Your task to perform on an android device: Open wifi settings Image 0: 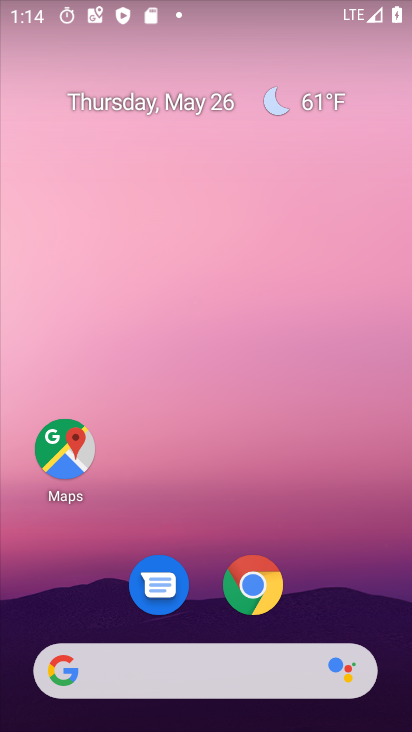
Step 0: drag from (223, 490) to (229, 30)
Your task to perform on an android device: Open wifi settings Image 1: 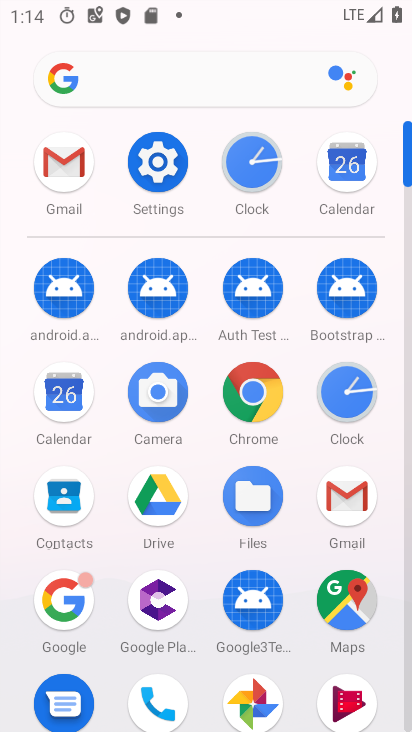
Step 1: click (164, 150)
Your task to perform on an android device: Open wifi settings Image 2: 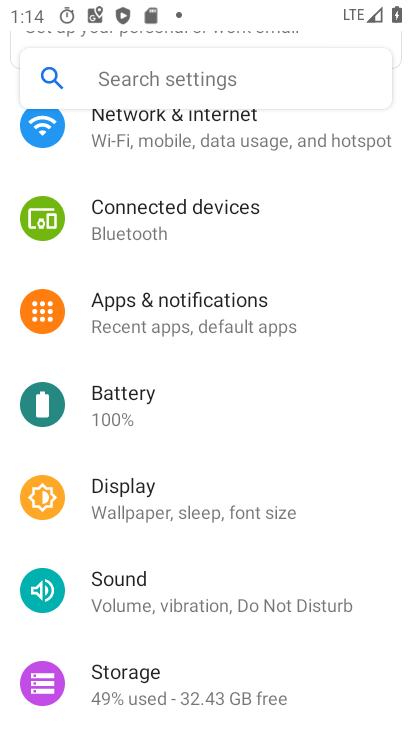
Step 2: click (288, 126)
Your task to perform on an android device: Open wifi settings Image 3: 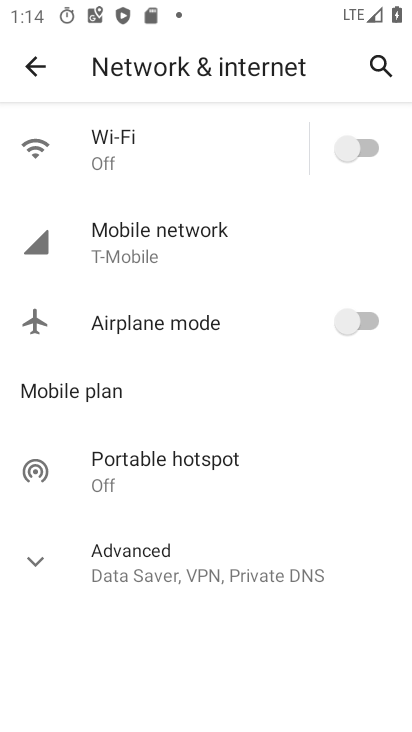
Step 3: click (143, 151)
Your task to perform on an android device: Open wifi settings Image 4: 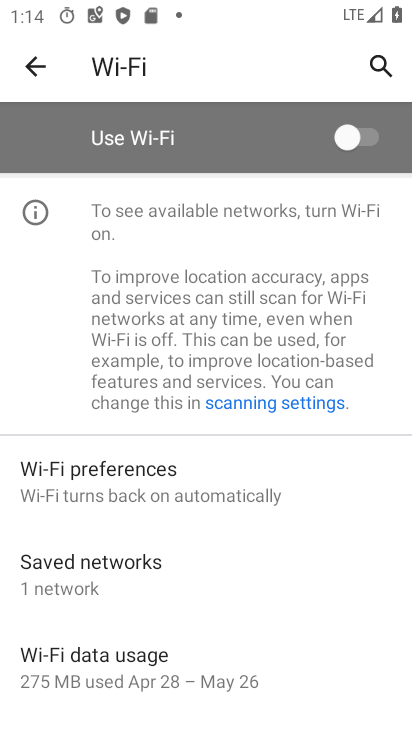
Step 4: task complete